Your task to perform on an android device: install app "Airtel Thanks" Image 0: 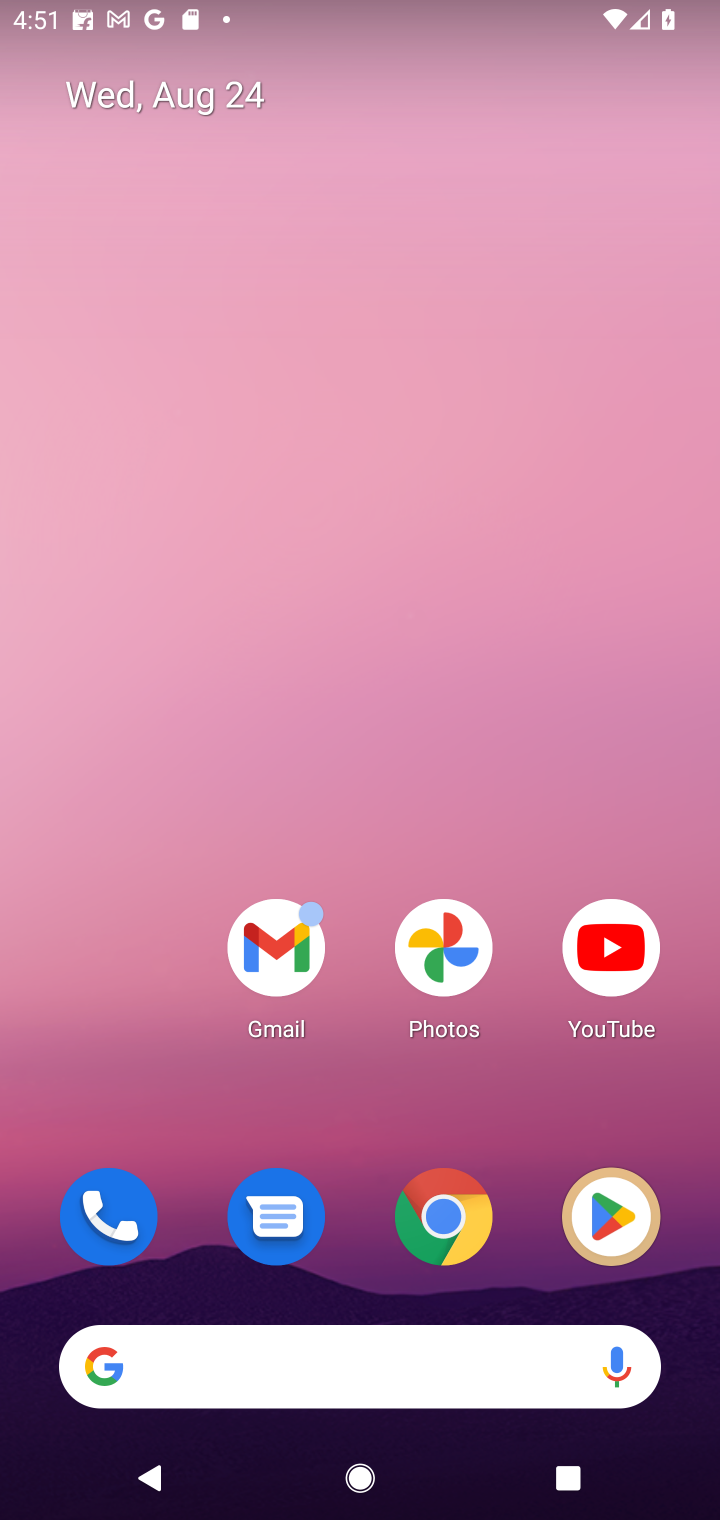
Step 0: click (585, 1173)
Your task to perform on an android device: install app "Airtel Thanks" Image 1: 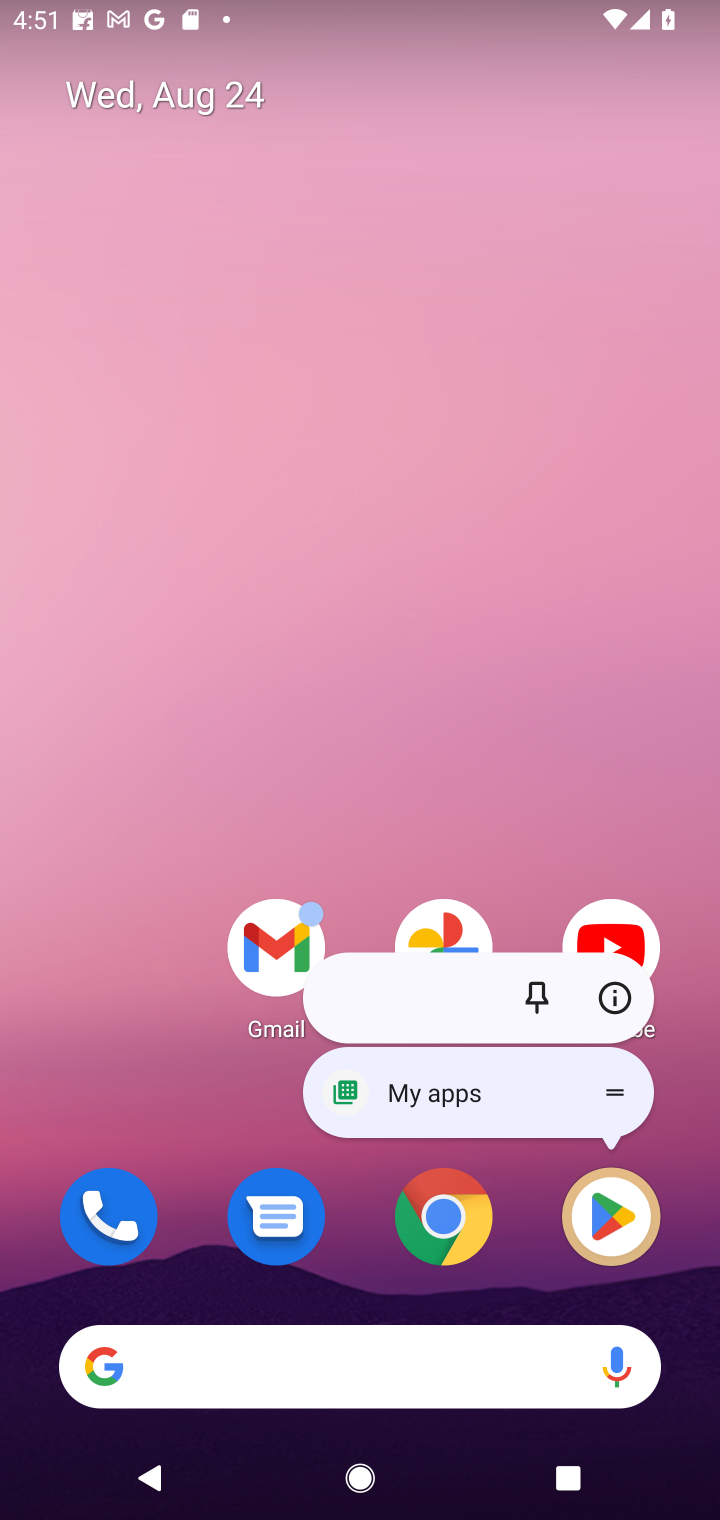
Step 1: click (605, 1211)
Your task to perform on an android device: install app "Airtel Thanks" Image 2: 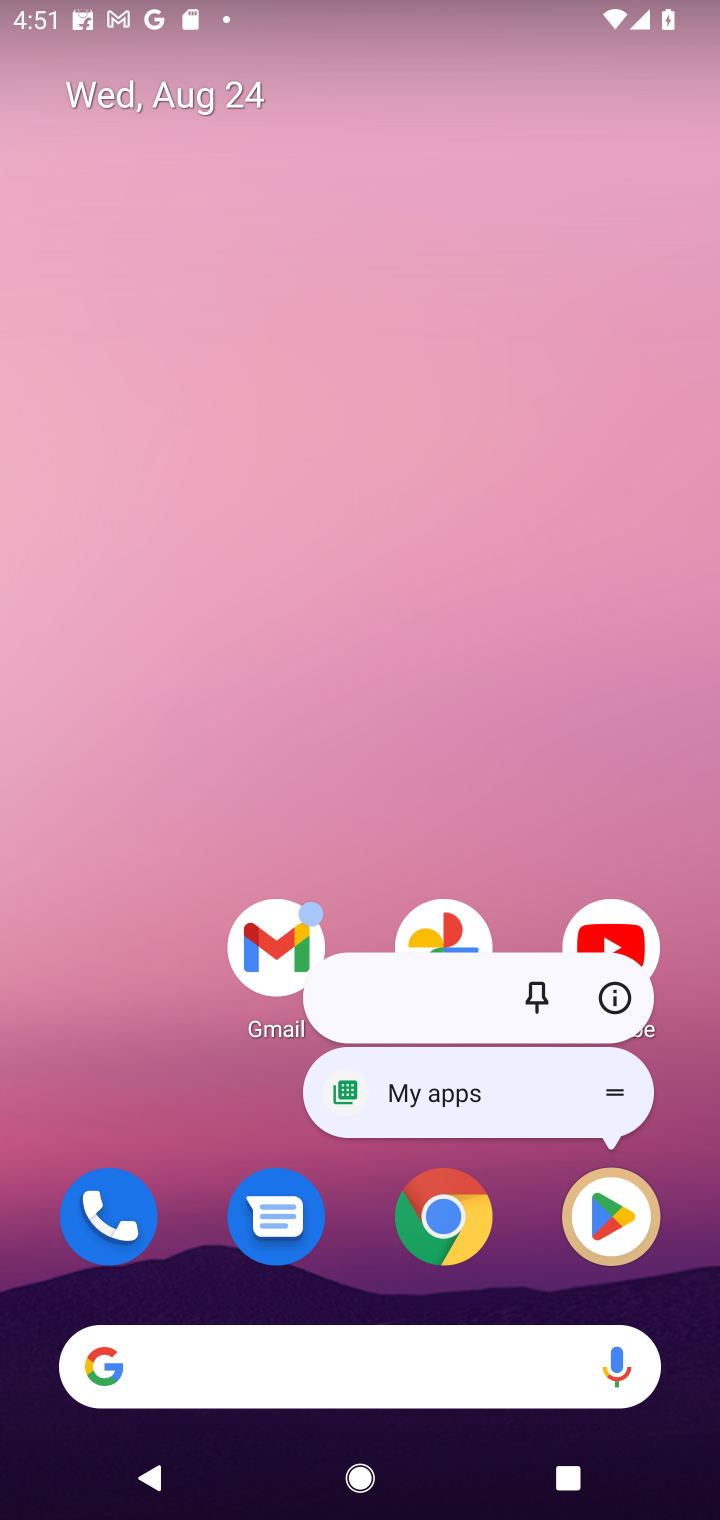
Step 2: click (635, 1245)
Your task to perform on an android device: install app "Airtel Thanks" Image 3: 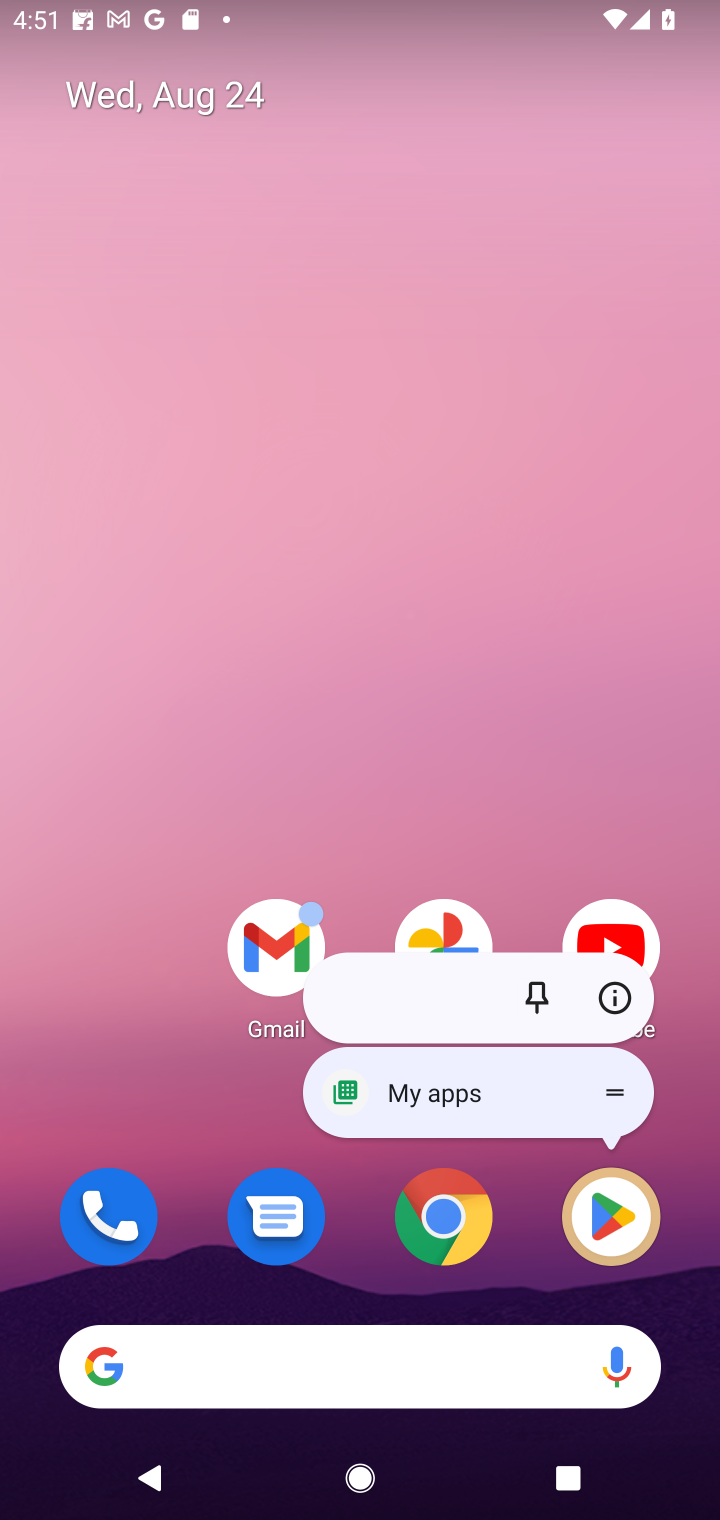
Step 3: click (603, 1235)
Your task to perform on an android device: install app "Airtel Thanks" Image 4: 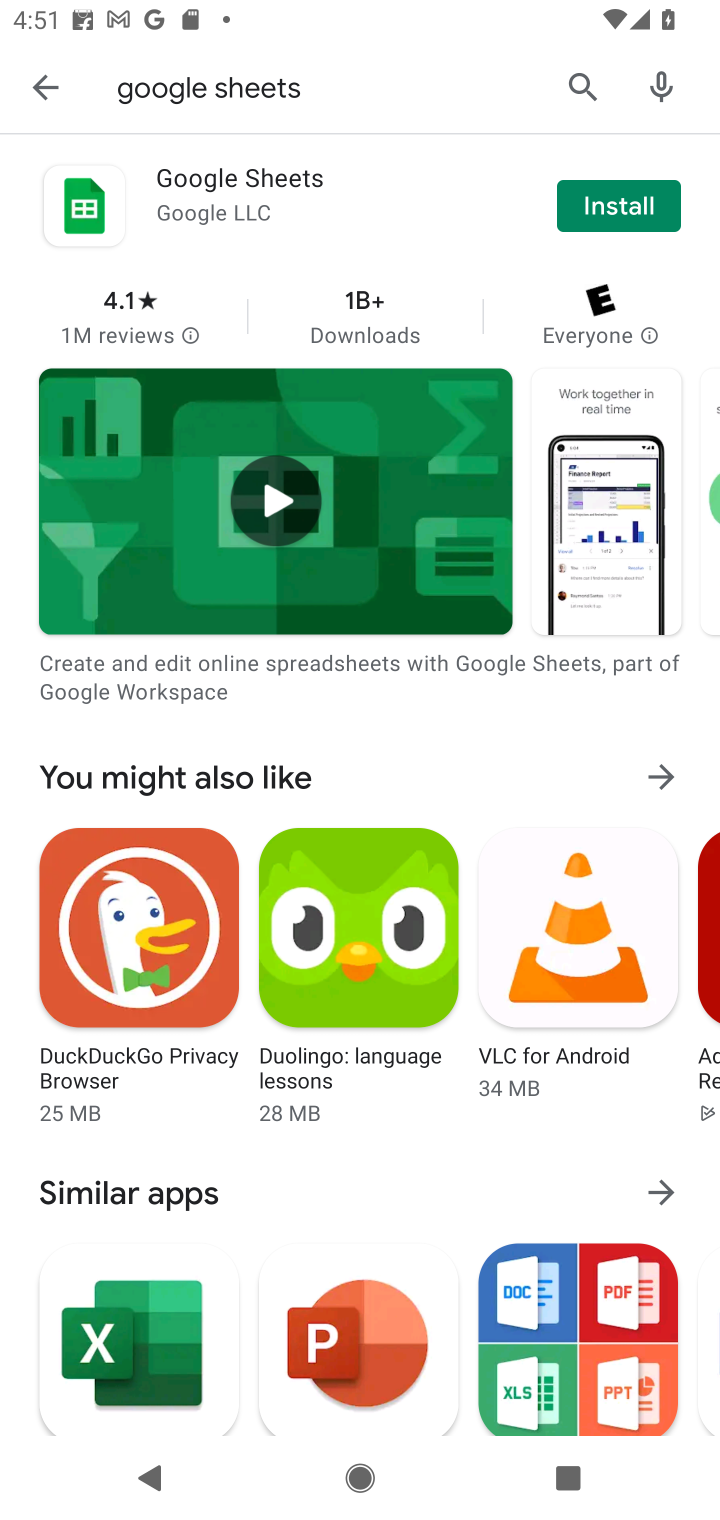
Step 4: click (580, 77)
Your task to perform on an android device: install app "Airtel Thanks" Image 5: 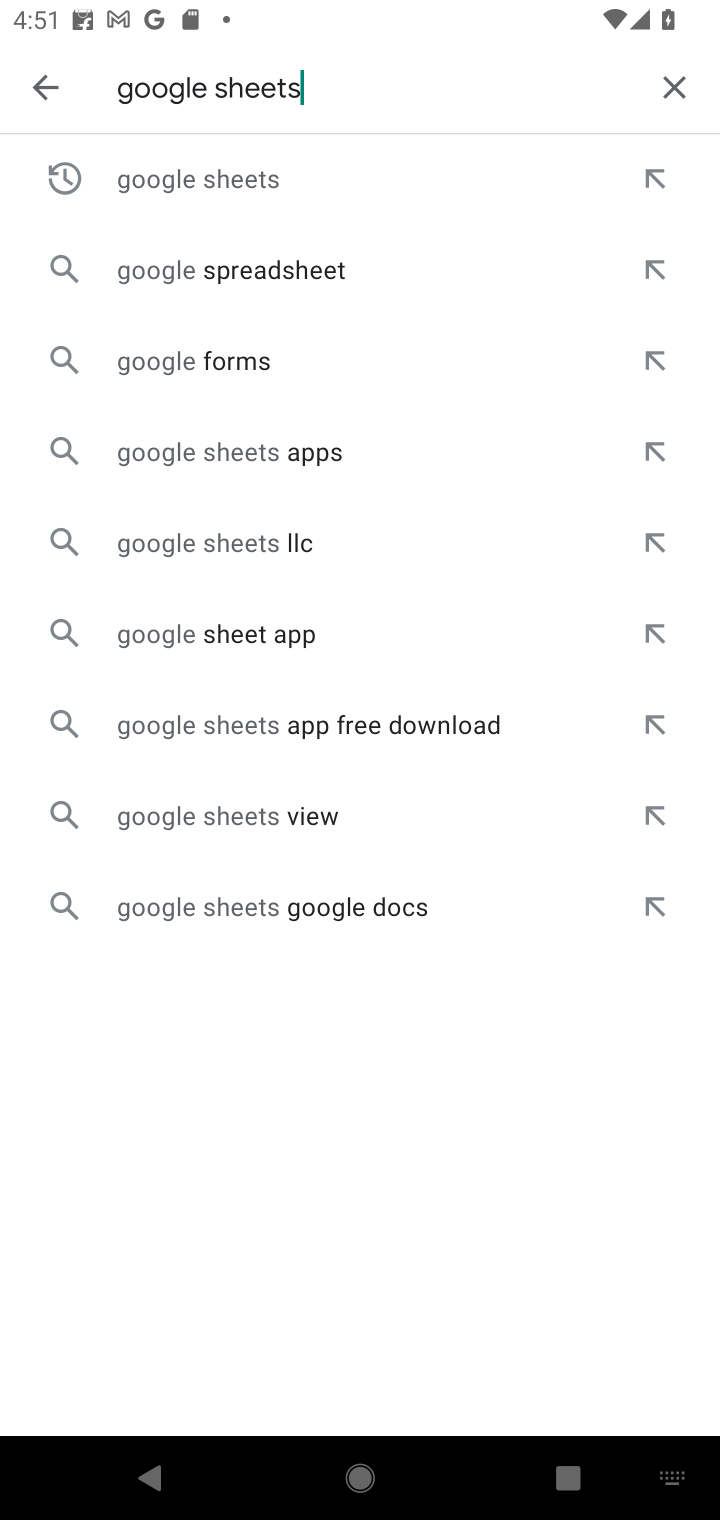
Step 5: click (665, 83)
Your task to perform on an android device: install app "Airtel Thanks" Image 6: 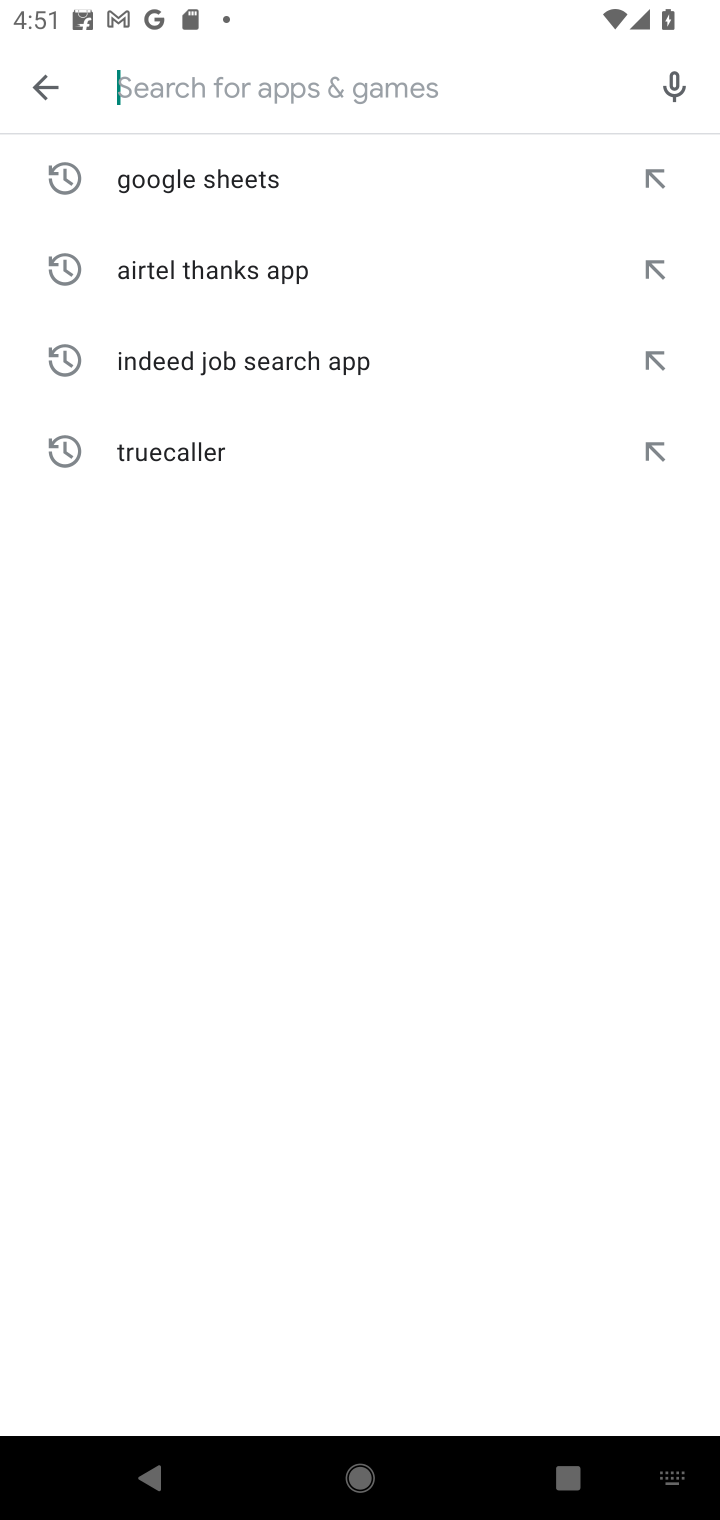
Step 6: type "Airtel Thanks"
Your task to perform on an android device: install app "Airtel Thanks" Image 7: 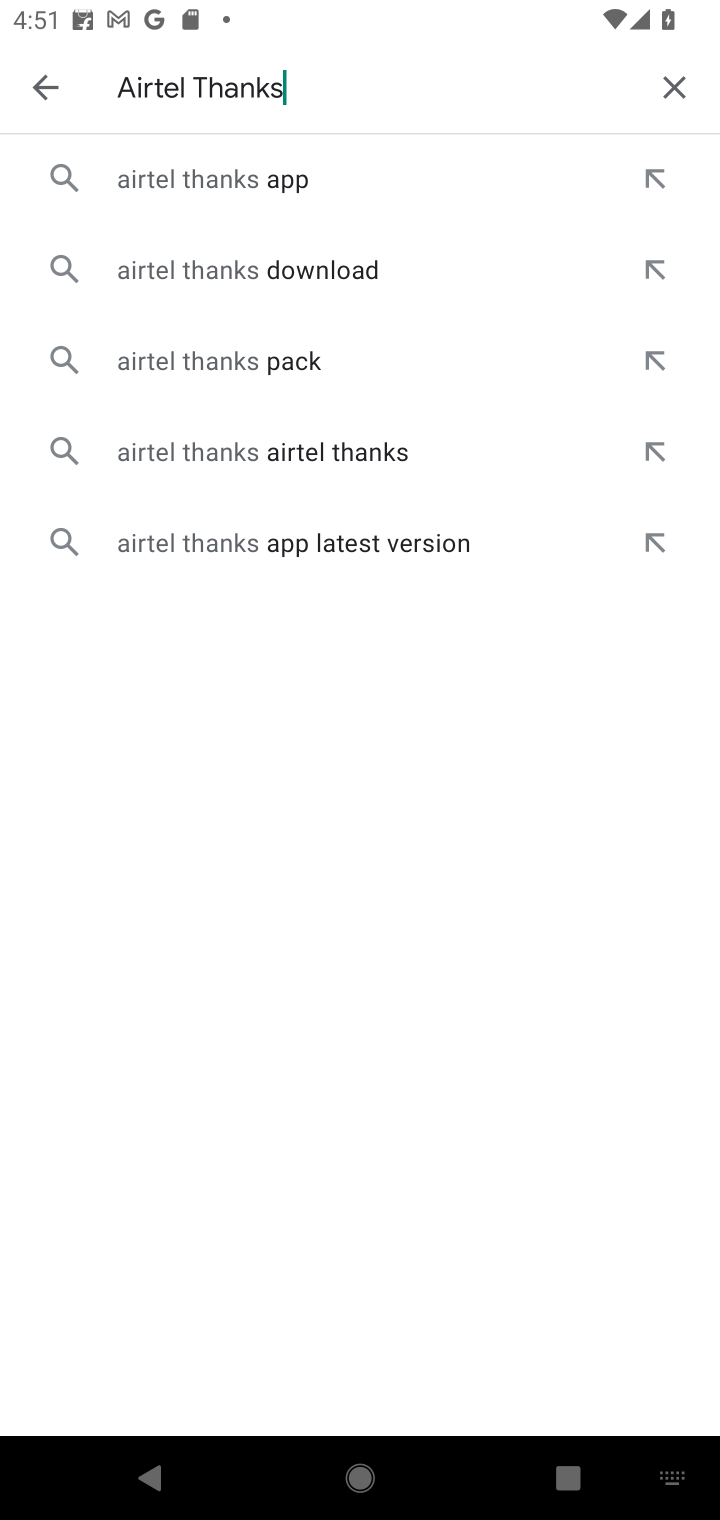
Step 7: click (329, 186)
Your task to perform on an android device: install app "Airtel Thanks" Image 8: 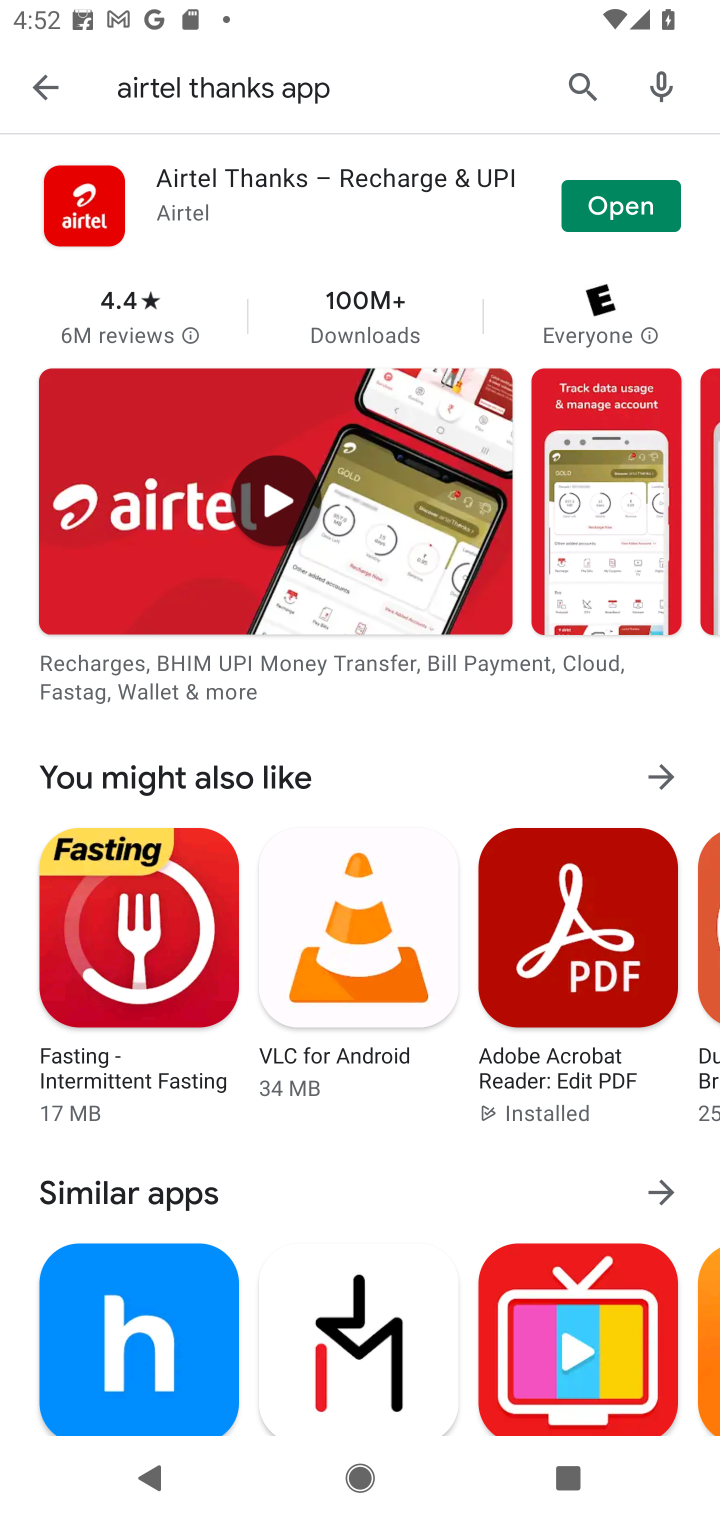
Step 8: task complete